Your task to perform on an android device: Search for Mexican restaurants on Maps Image 0: 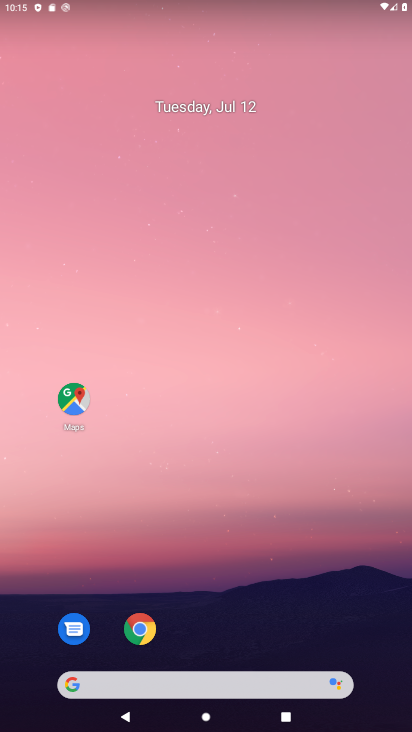
Step 0: drag from (302, 625) to (294, 582)
Your task to perform on an android device: Search for Mexican restaurants on Maps Image 1: 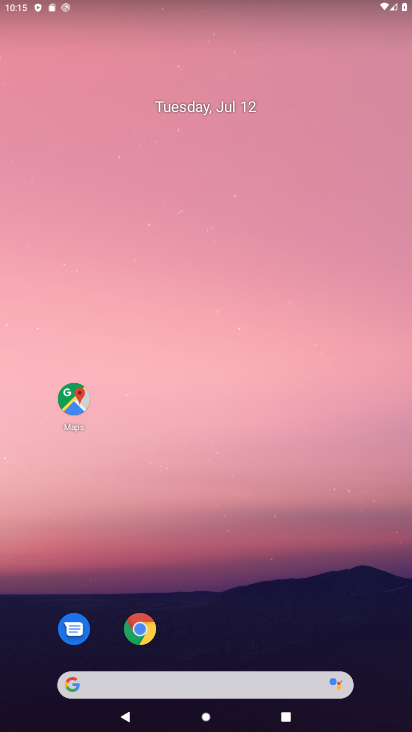
Step 1: click (76, 399)
Your task to perform on an android device: Search for Mexican restaurants on Maps Image 2: 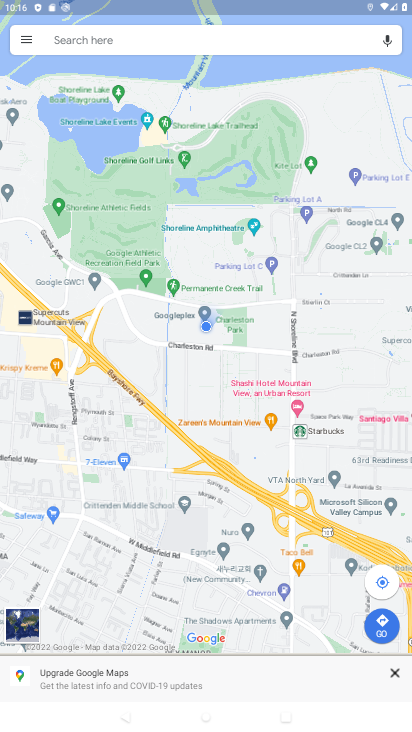
Step 2: click (195, 34)
Your task to perform on an android device: Search for Mexican restaurants on Maps Image 3: 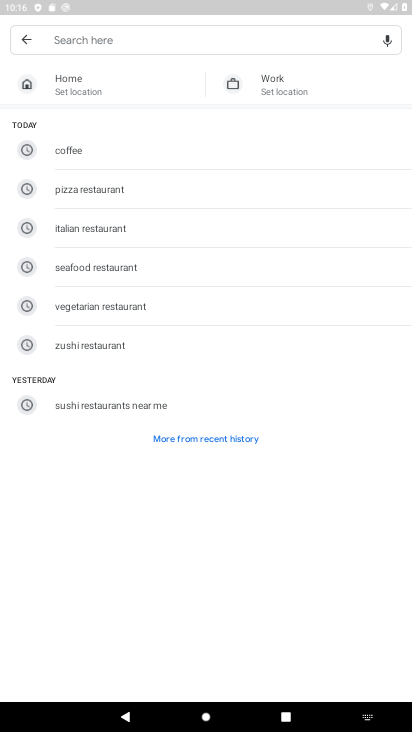
Step 3: type "mexican restaurant"
Your task to perform on an android device: Search for Mexican restaurants on Maps Image 4: 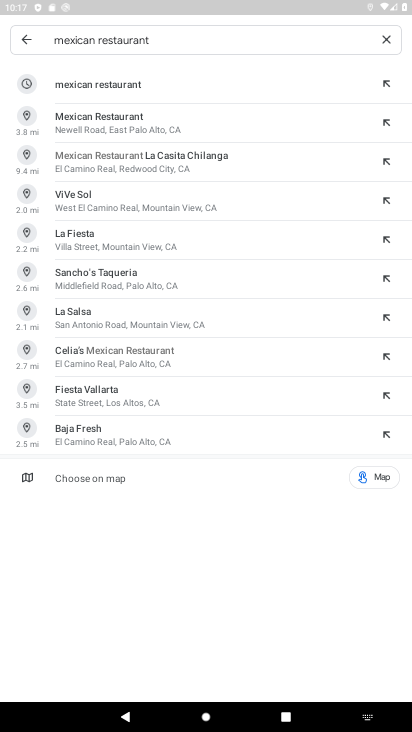
Step 4: click (148, 87)
Your task to perform on an android device: Search for Mexican restaurants on Maps Image 5: 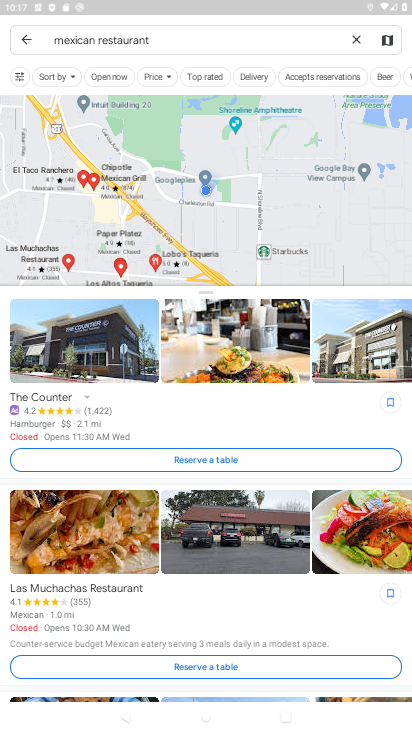
Step 5: task complete